Your task to perform on an android device: Open internet settings Image 0: 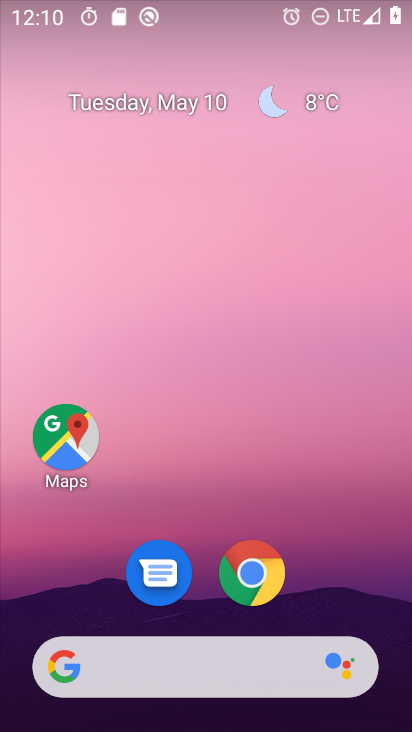
Step 0: drag from (317, 588) to (278, 208)
Your task to perform on an android device: Open internet settings Image 1: 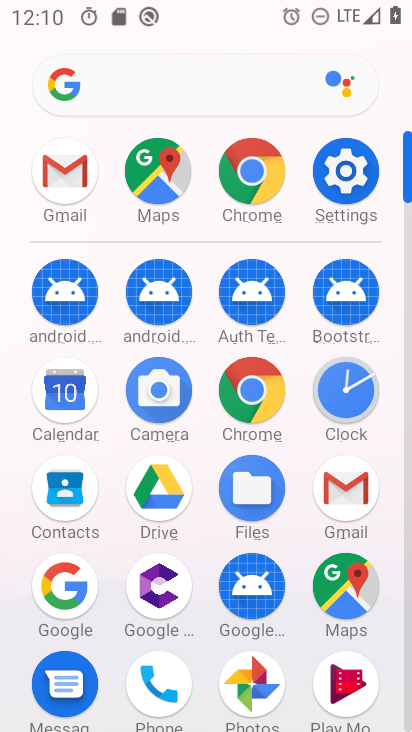
Step 1: click (345, 172)
Your task to perform on an android device: Open internet settings Image 2: 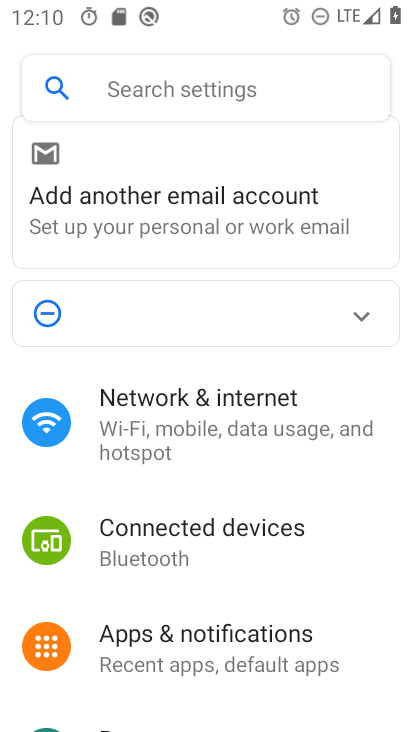
Step 2: click (219, 422)
Your task to perform on an android device: Open internet settings Image 3: 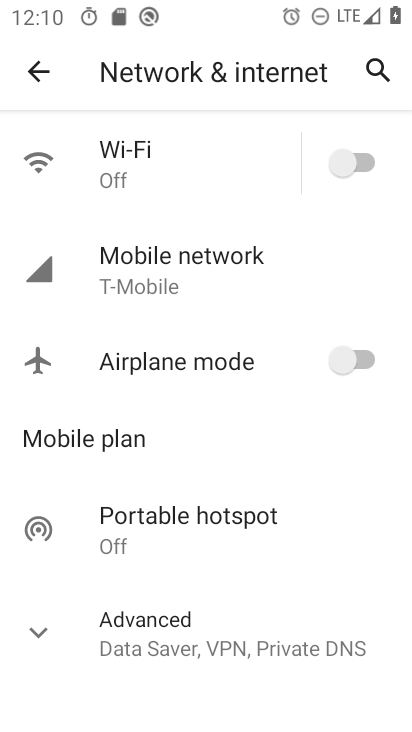
Step 3: task complete